Your task to perform on an android device: Go to Google maps Image 0: 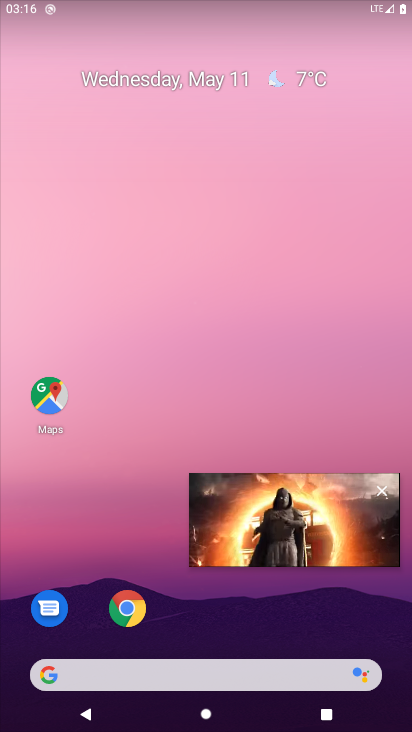
Step 0: click (383, 488)
Your task to perform on an android device: Go to Google maps Image 1: 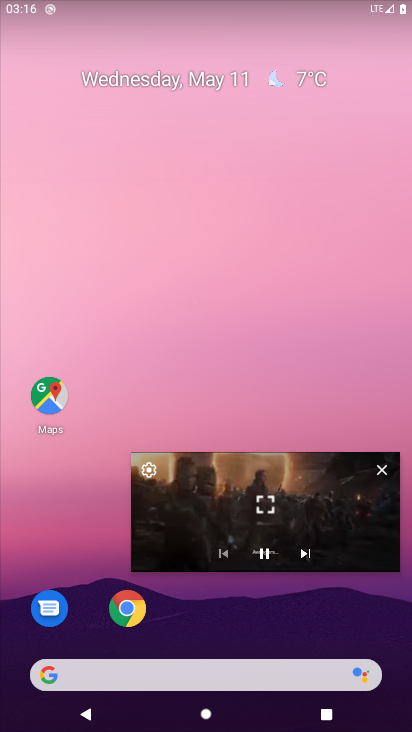
Step 1: click (377, 470)
Your task to perform on an android device: Go to Google maps Image 2: 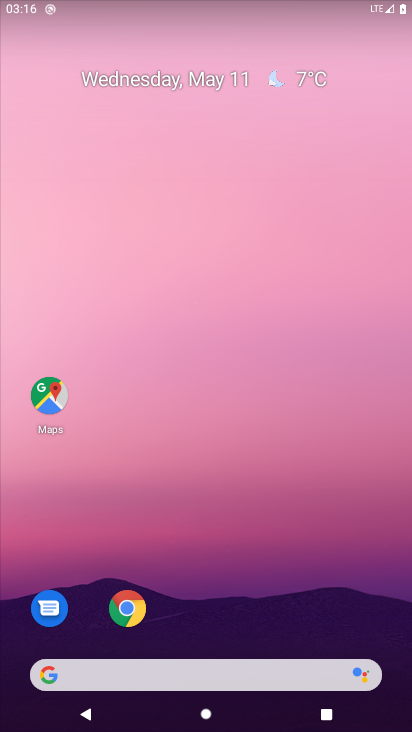
Step 2: click (44, 391)
Your task to perform on an android device: Go to Google maps Image 3: 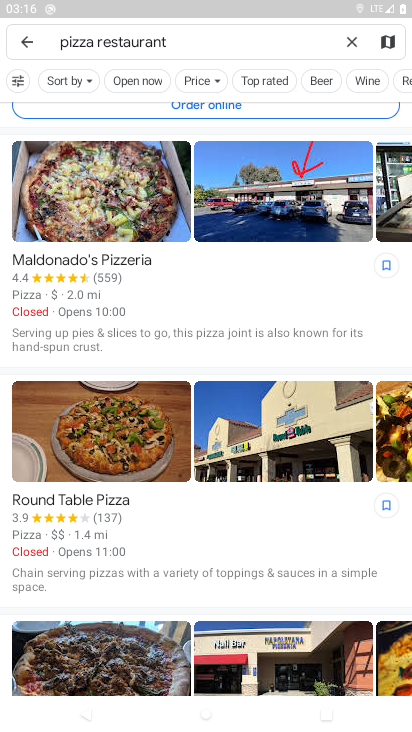
Step 3: click (29, 40)
Your task to perform on an android device: Go to Google maps Image 4: 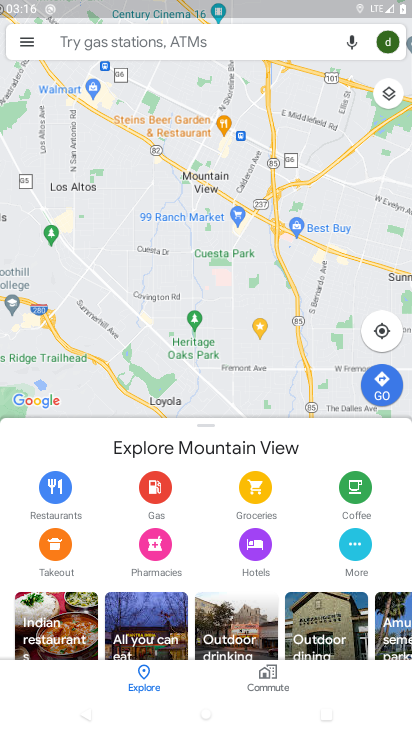
Step 4: task complete